Your task to perform on an android device: snooze an email in the gmail app Image 0: 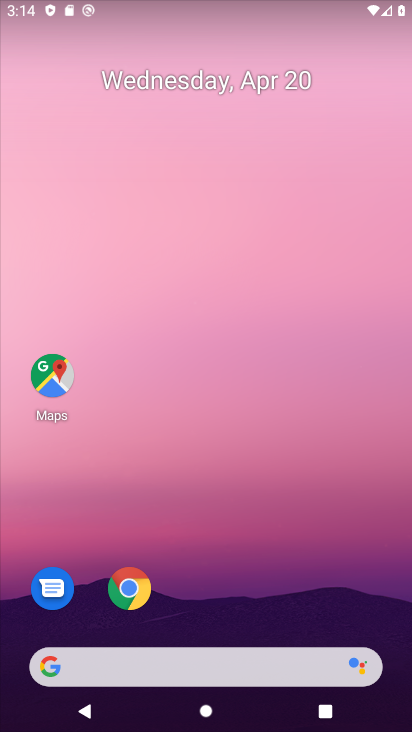
Step 0: drag from (265, 608) to (148, 95)
Your task to perform on an android device: snooze an email in the gmail app Image 1: 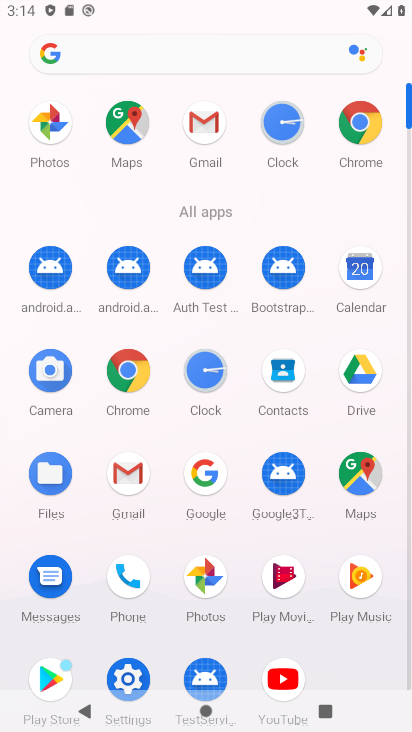
Step 1: click (125, 483)
Your task to perform on an android device: snooze an email in the gmail app Image 2: 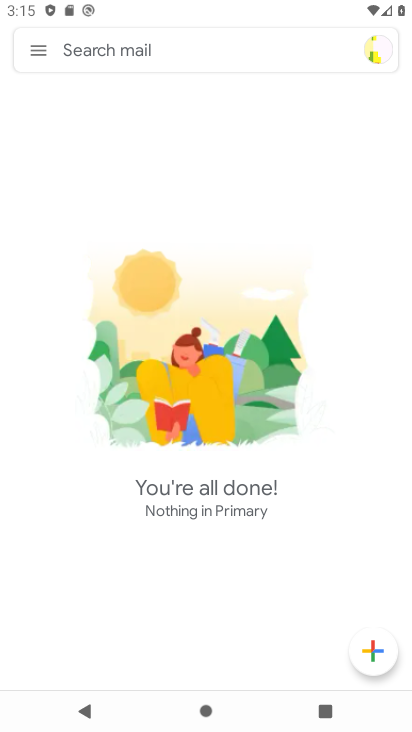
Step 2: click (49, 47)
Your task to perform on an android device: snooze an email in the gmail app Image 3: 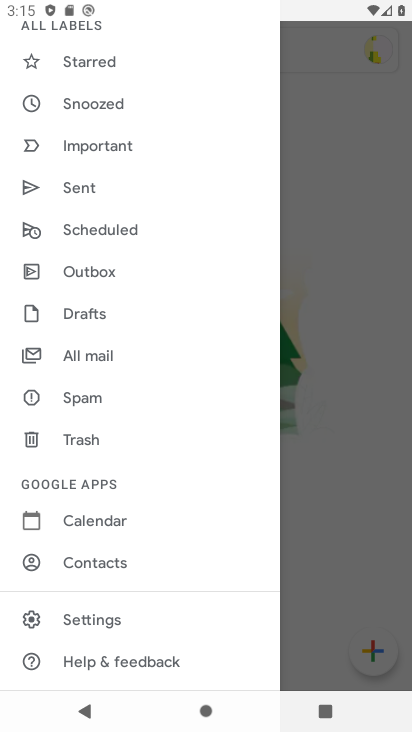
Step 3: click (97, 345)
Your task to perform on an android device: snooze an email in the gmail app Image 4: 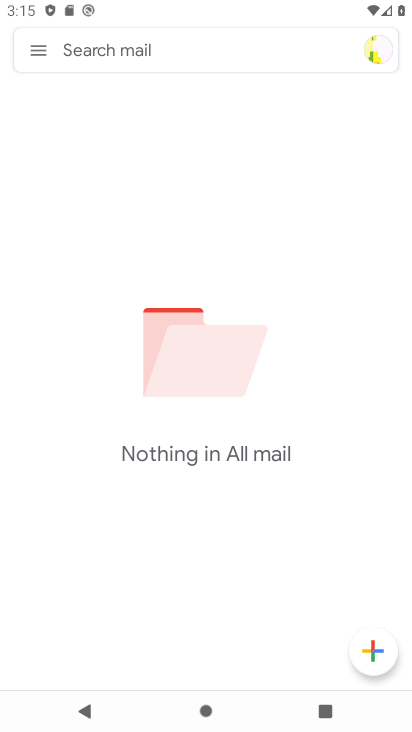
Step 4: task complete